Your task to perform on an android device: turn off notifications in google photos Image 0: 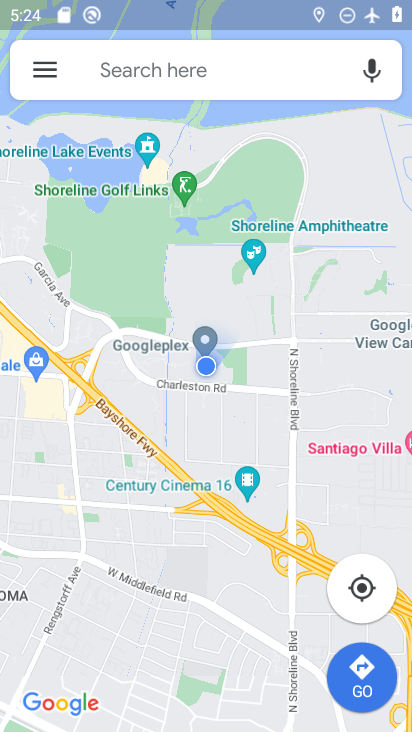
Step 0: press home button
Your task to perform on an android device: turn off notifications in google photos Image 1: 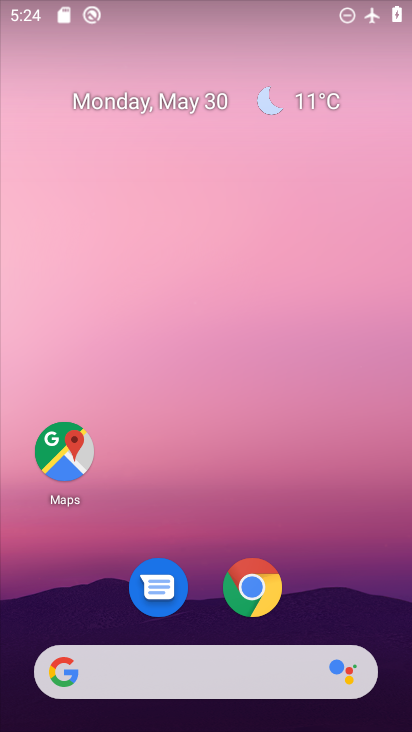
Step 1: drag from (323, 596) to (271, 18)
Your task to perform on an android device: turn off notifications in google photos Image 2: 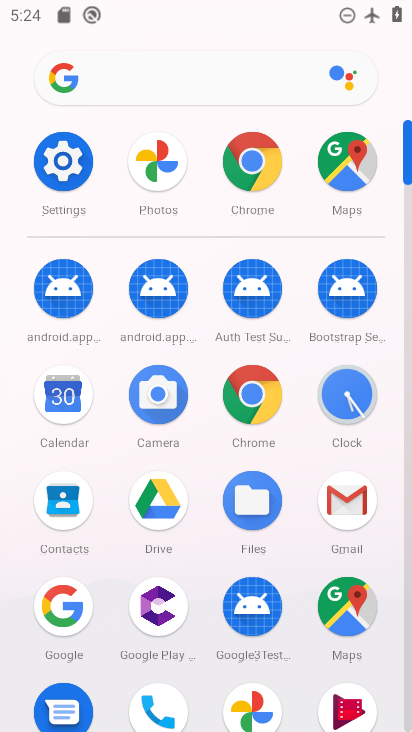
Step 2: drag from (17, 617) to (18, 371)
Your task to perform on an android device: turn off notifications in google photos Image 3: 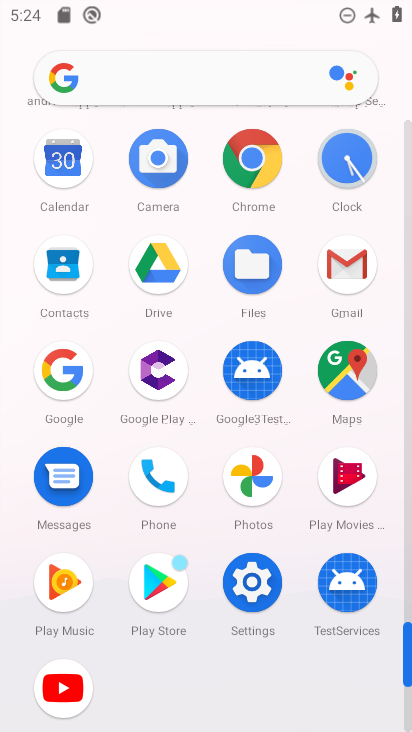
Step 3: click (251, 468)
Your task to perform on an android device: turn off notifications in google photos Image 4: 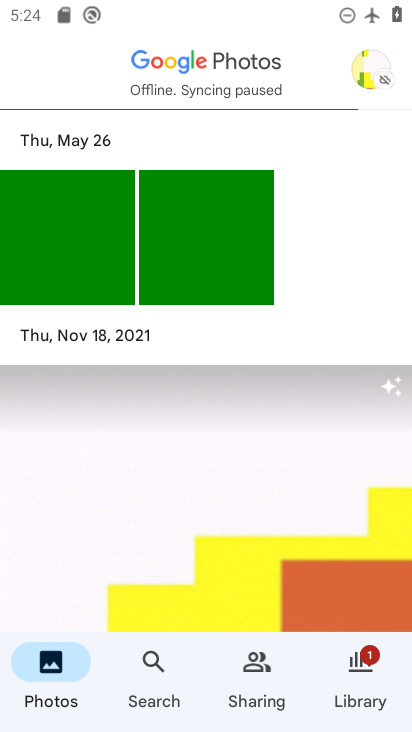
Step 4: click (366, 73)
Your task to perform on an android device: turn off notifications in google photos Image 5: 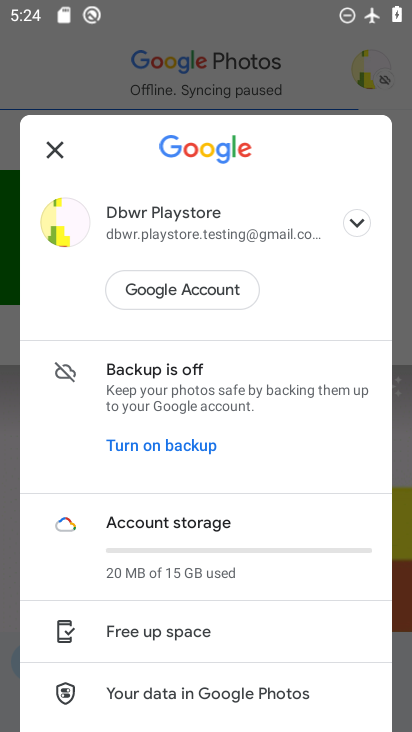
Step 5: drag from (229, 619) to (246, 267)
Your task to perform on an android device: turn off notifications in google photos Image 6: 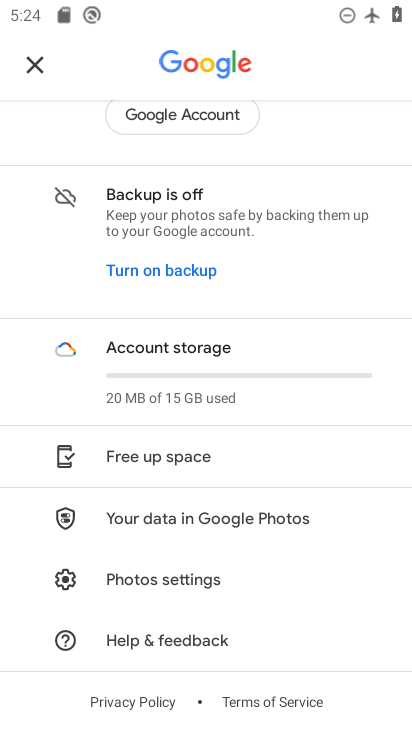
Step 6: click (178, 570)
Your task to perform on an android device: turn off notifications in google photos Image 7: 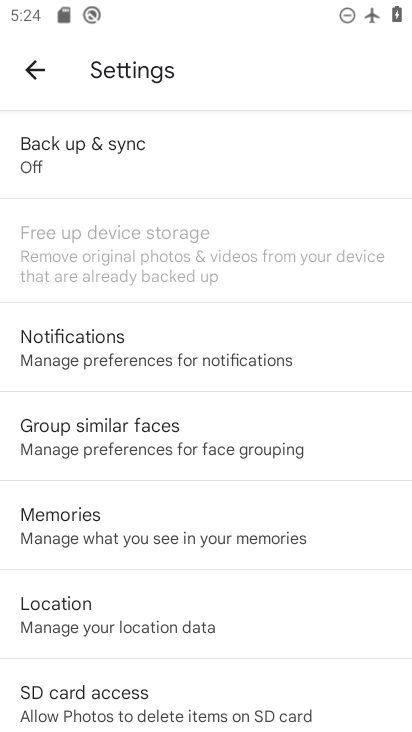
Step 7: click (170, 345)
Your task to perform on an android device: turn off notifications in google photos Image 8: 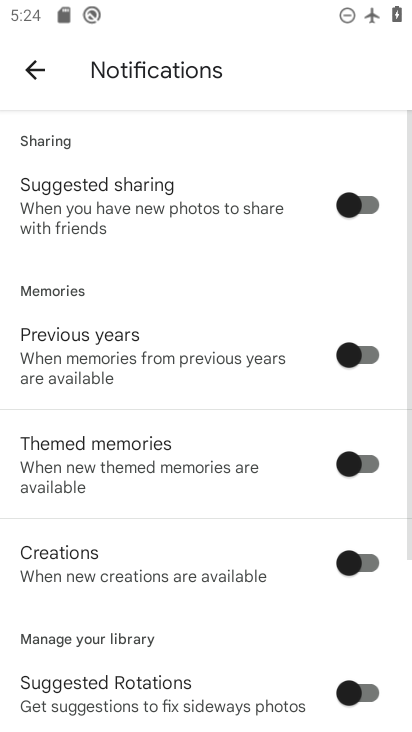
Step 8: drag from (191, 574) to (251, 96)
Your task to perform on an android device: turn off notifications in google photos Image 9: 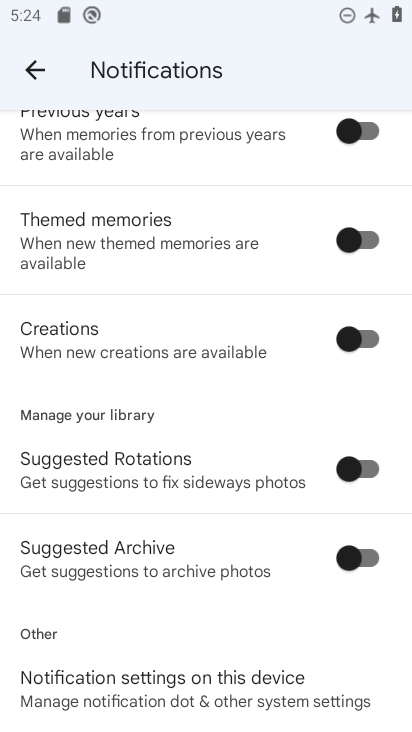
Step 9: drag from (216, 614) to (214, 270)
Your task to perform on an android device: turn off notifications in google photos Image 10: 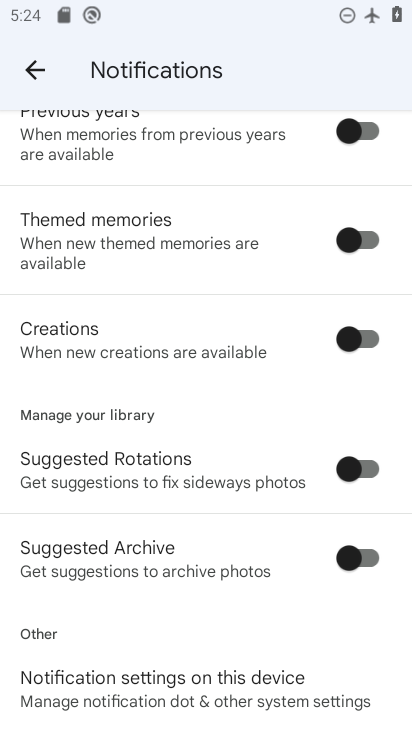
Step 10: click (169, 690)
Your task to perform on an android device: turn off notifications in google photos Image 11: 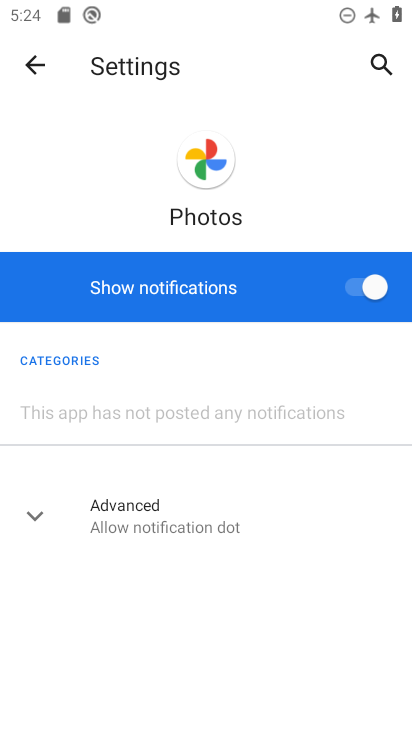
Step 11: click (358, 286)
Your task to perform on an android device: turn off notifications in google photos Image 12: 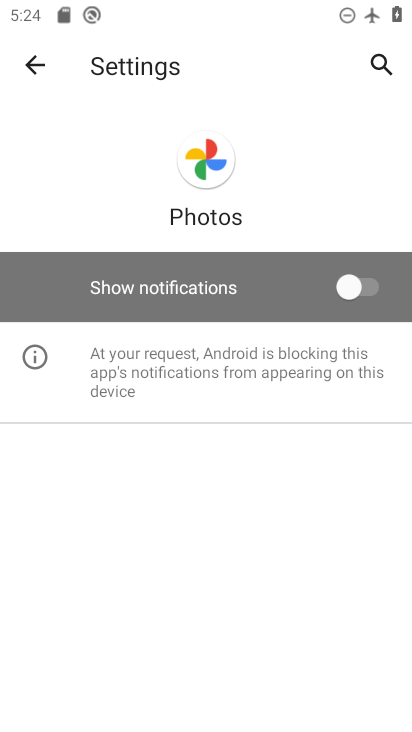
Step 12: task complete